Your task to perform on an android device: Open notification settings Image 0: 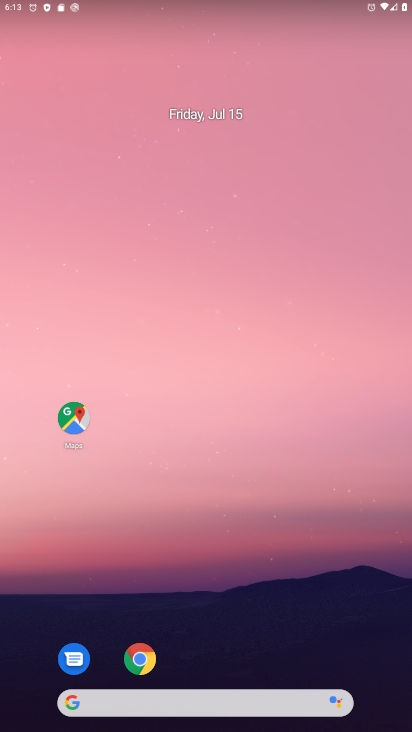
Step 0: drag from (383, 673) to (319, 250)
Your task to perform on an android device: Open notification settings Image 1: 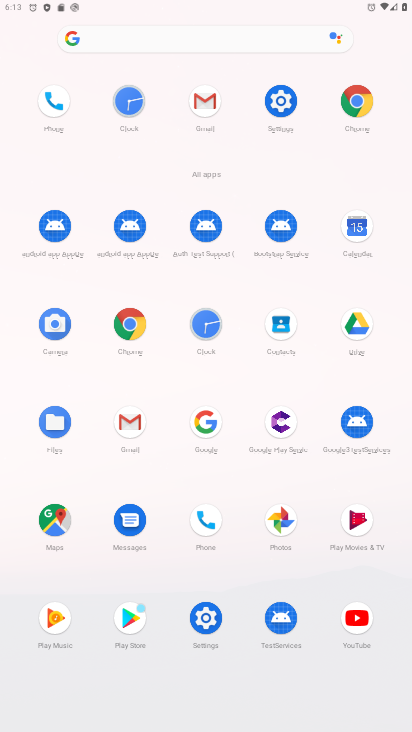
Step 1: click (203, 616)
Your task to perform on an android device: Open notification settings Image 2: 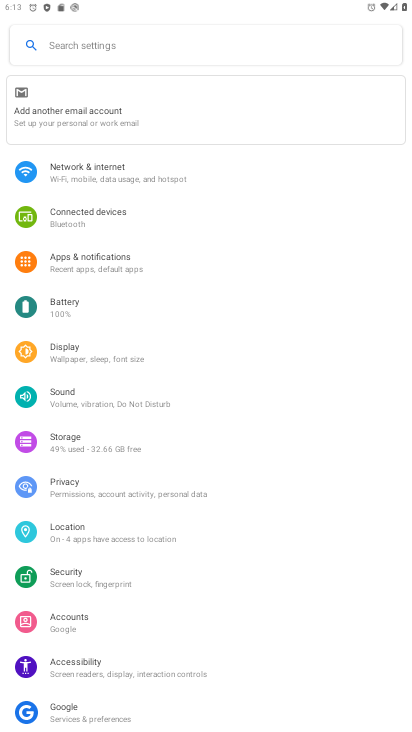
Step 2: click (102, 261)
Your task to perform on an android device: Open notification settings Image 3: 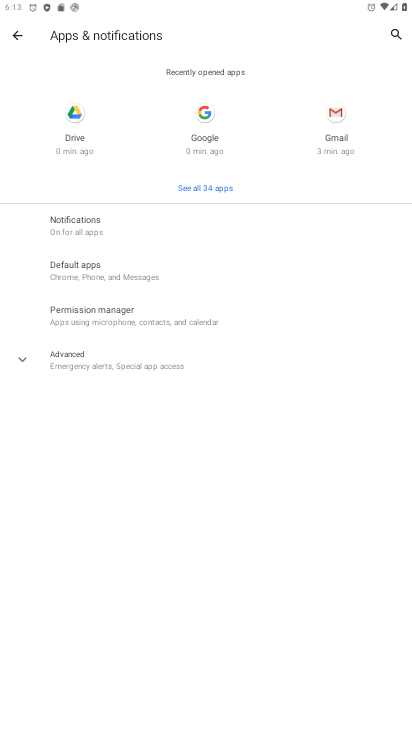
Step 3: click (68, 221)
Your task to perform on an android device: Open notification settings Image 4: 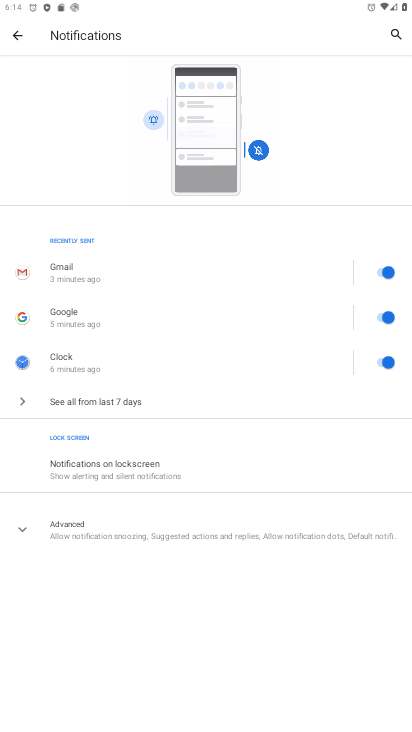
Step 4: task complete